Your task to perform on an android device: toggle airplane mode Image 0: 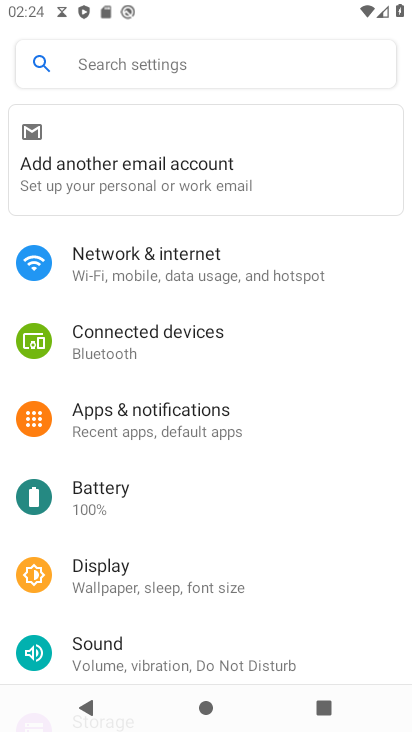
Step 0: press home button
Your task to perform on an android device: toggle airplane mode Image 1: 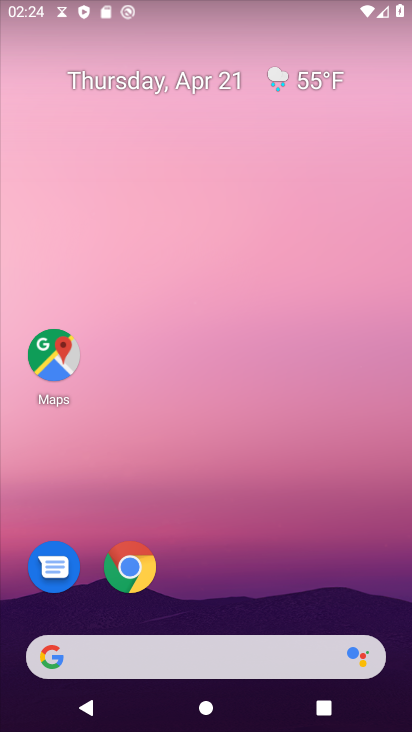
Step 1: drag from (168, 650) to (242, 27)
Your task to perform on an android device: toggle airplane mode Image 2: 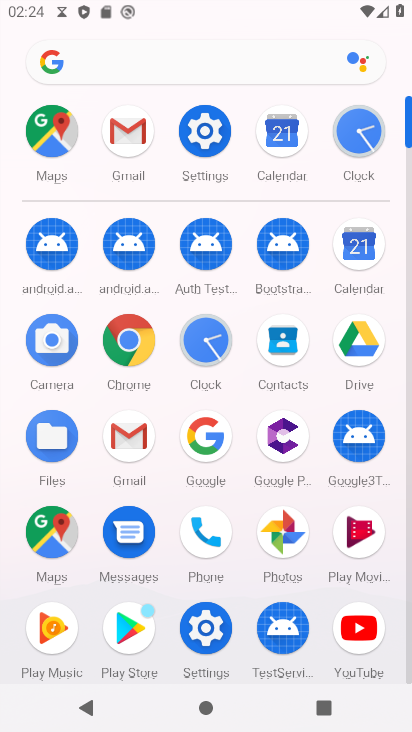
Step 2: click (215, 135)
Your task to perform on an android device: toggle airplane mode Image 3: 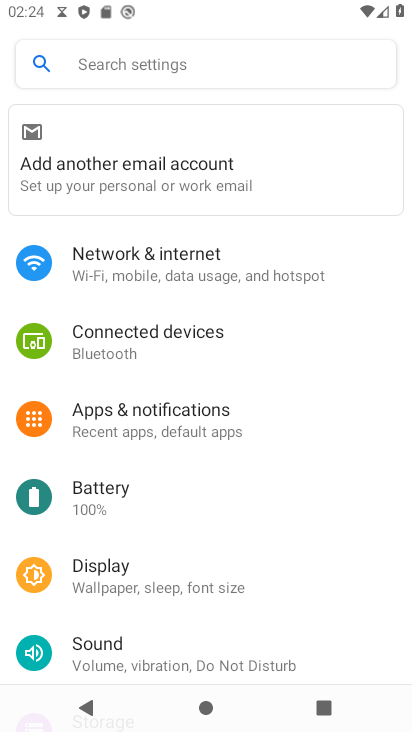
Step 3: click (205, 250)
Your task to perform on an android device: toggle airplane mode Image 4: 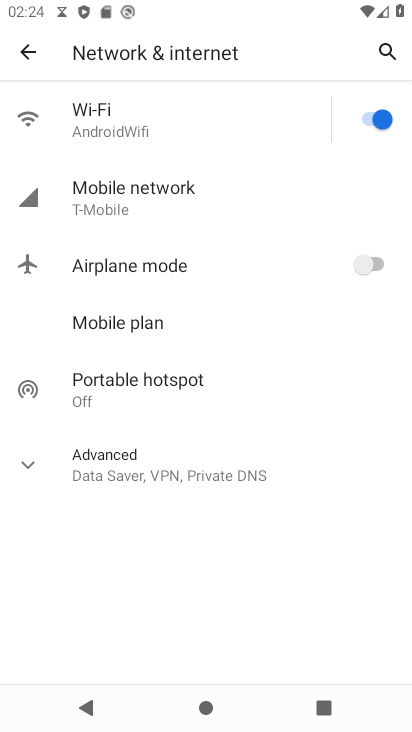
Step 4: click (381, 265)
Your task to perform on an android device: toggle airplane mode Image 5: 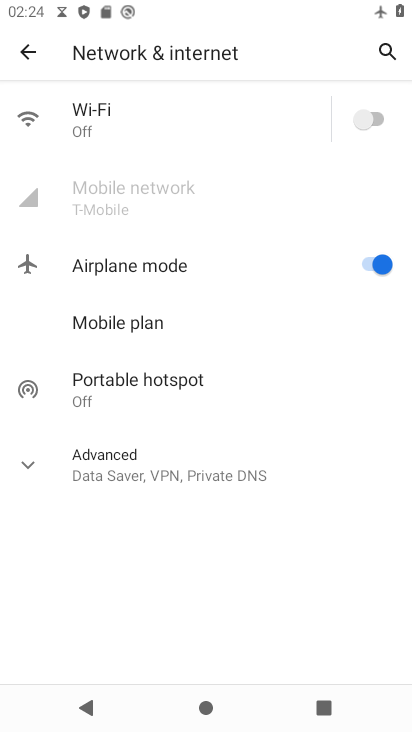
Step 5: task complete